Your task to perform on an android device: Empty the shopping cart on bestbuy.com. Add panasonic triple a to the cart on bestbuy.com Image 0: 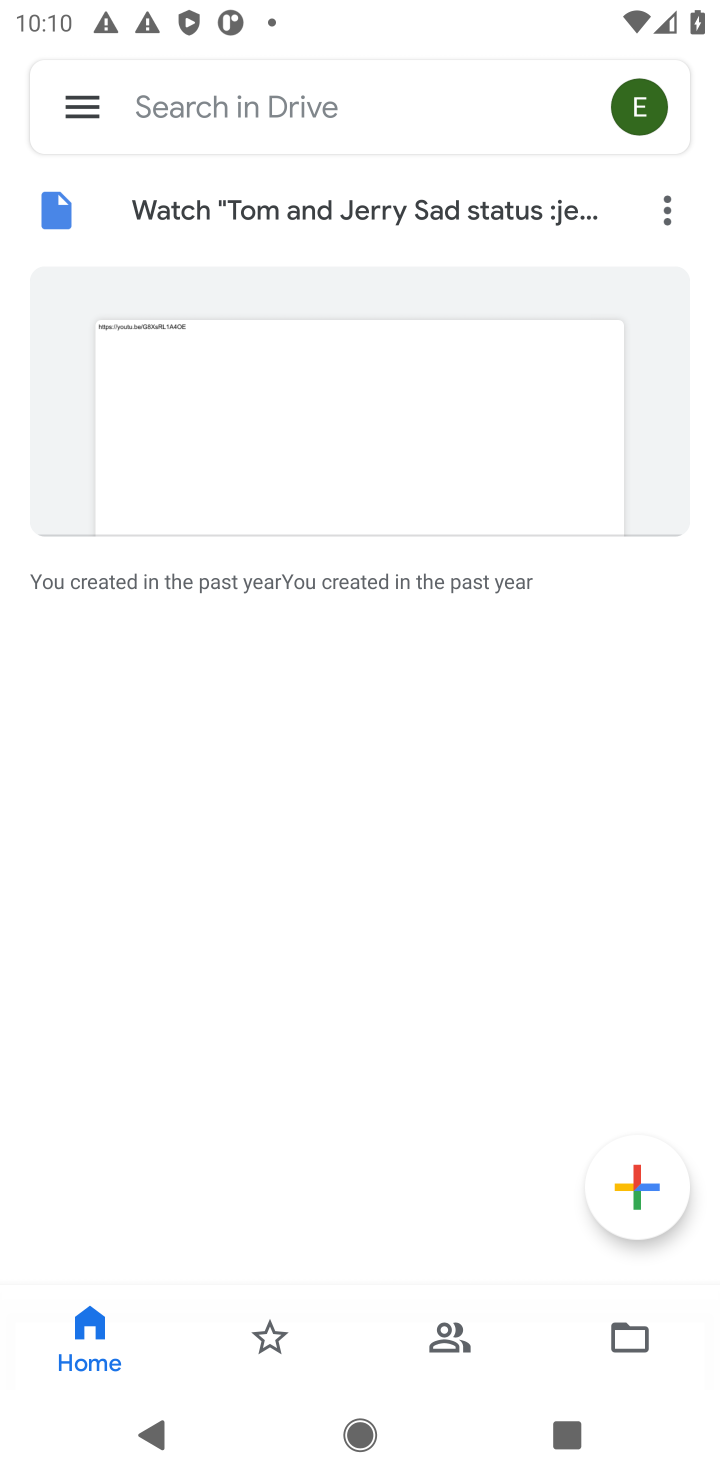
Step 0: press home button
Your task to perform on an android device: Empty the shopping cart on bestbuy.com. Add panasonic triple a to the cart on bestbuy.com Image 1: 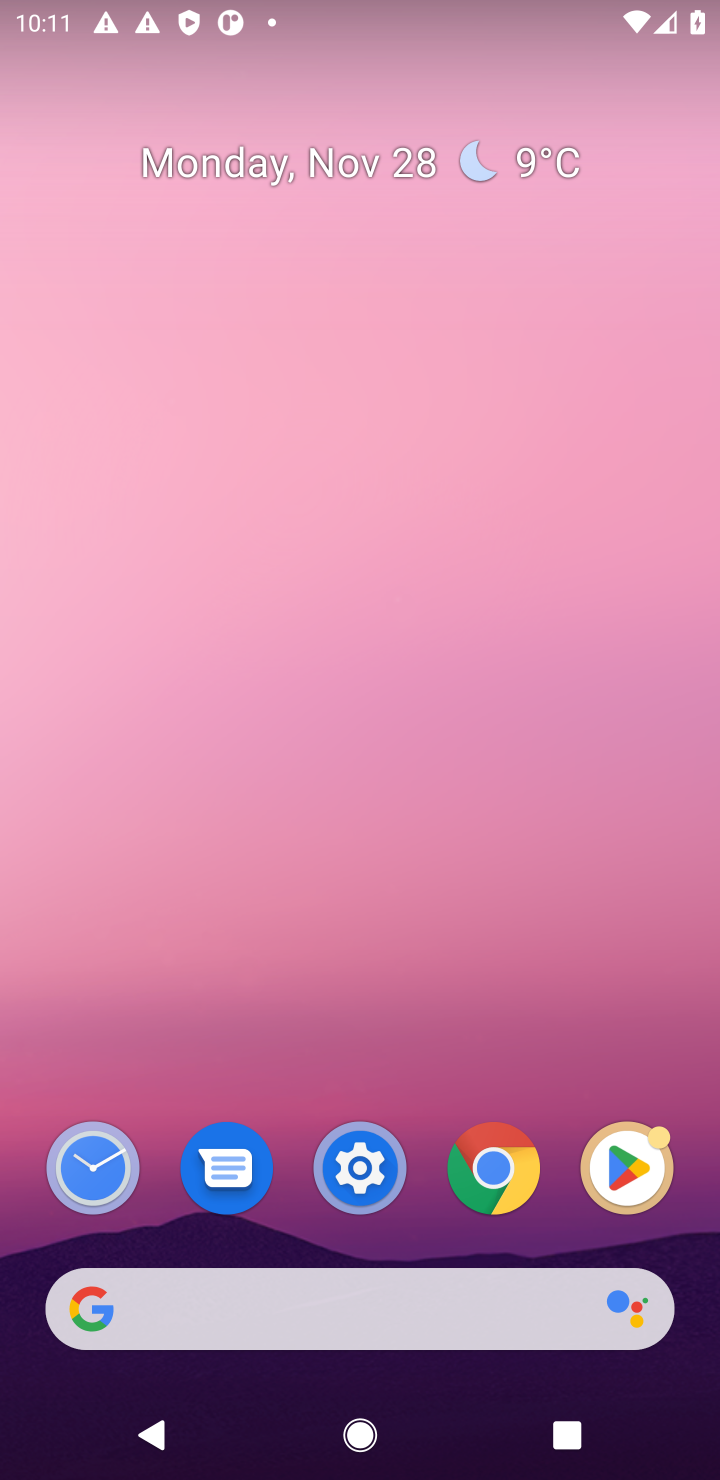
Step 1: click (275, 1285)
Your task to perform on an android device: Empty the shopping cart on bestbuy.com. Add panasonic triple a to the cart on bestbuy.com Image 2: 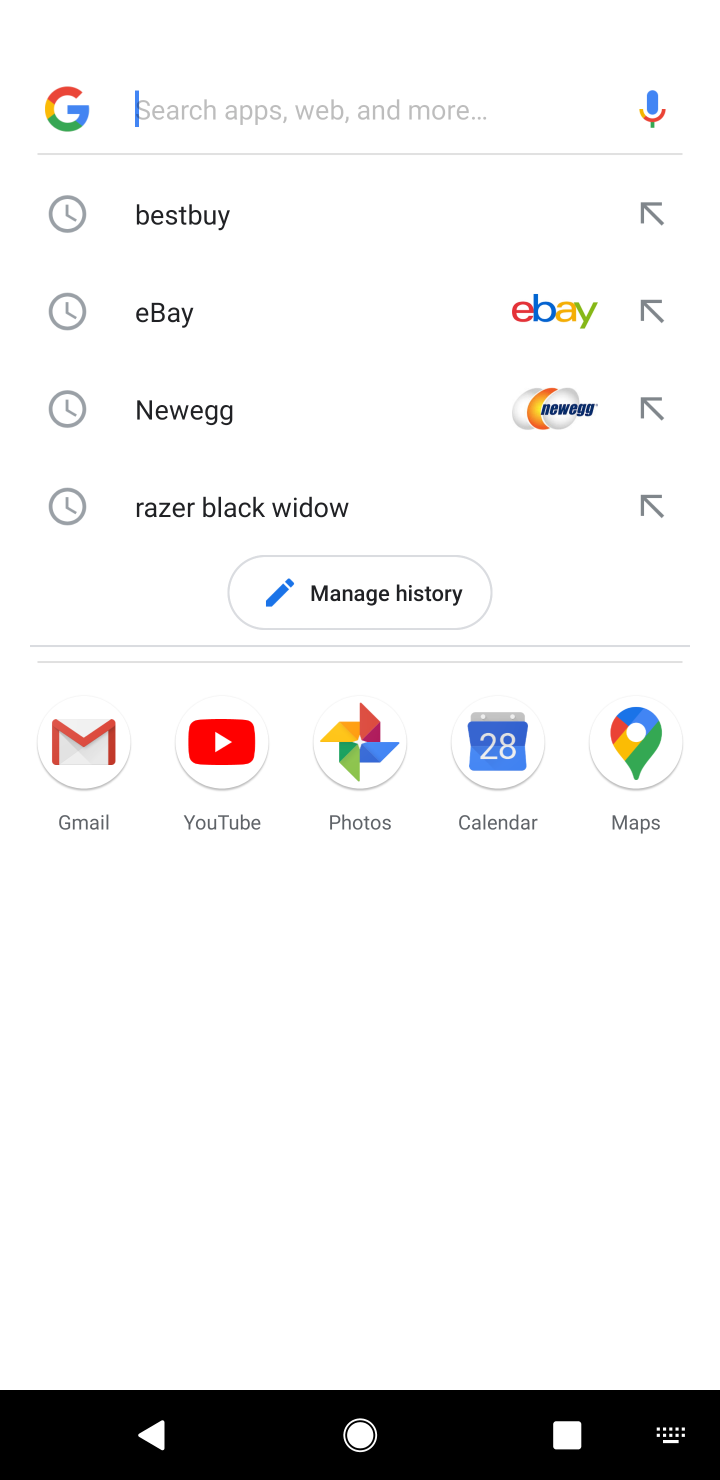
Step 2: type "bestbuy.com"
Your task to perform on an android device: Empty the shopping cart on bestbuy.com. Add panasonic triple a to the cart on bestbuy.com Image 3: 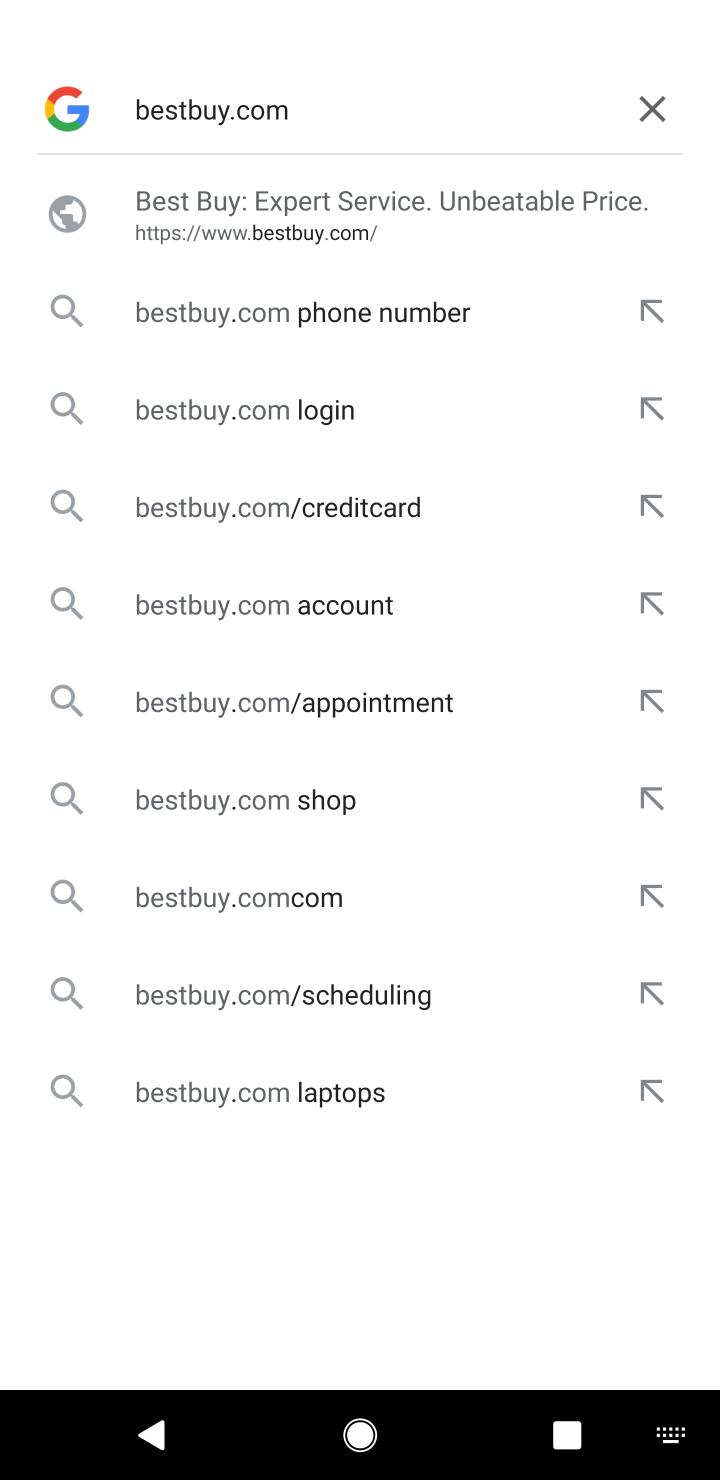
Step 3: click (219, 220)
Your task to perform on an android device: Empty the shopping cart on bestbuy.com. Add panasonic triple a to the cart on bestbuy.com Image 4: 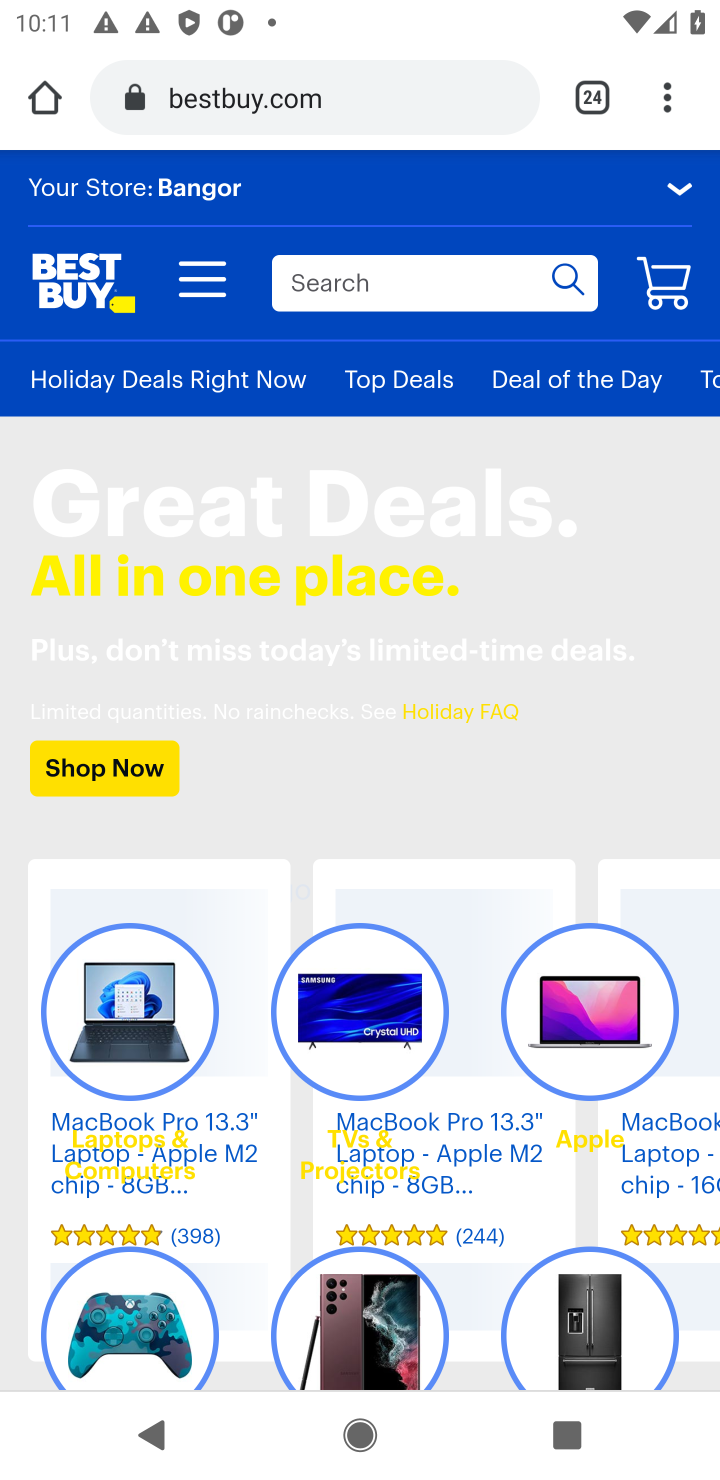
Step 4: task complete